Your task to perform on an android device: change the clock display to digital Image 0: 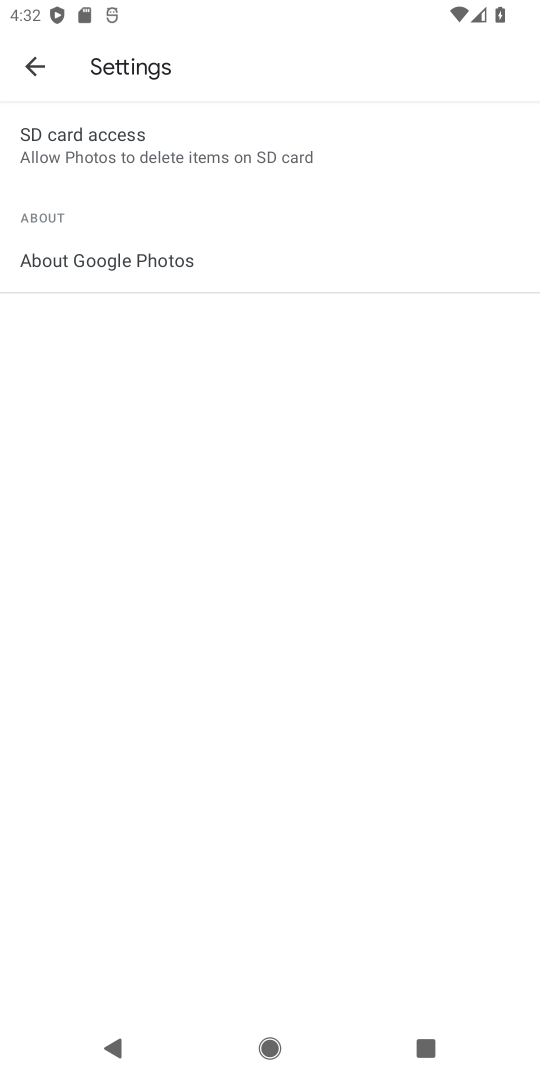
Step 0: press home button
Your task to perform on an android device: change the clock display to digital Image 1: 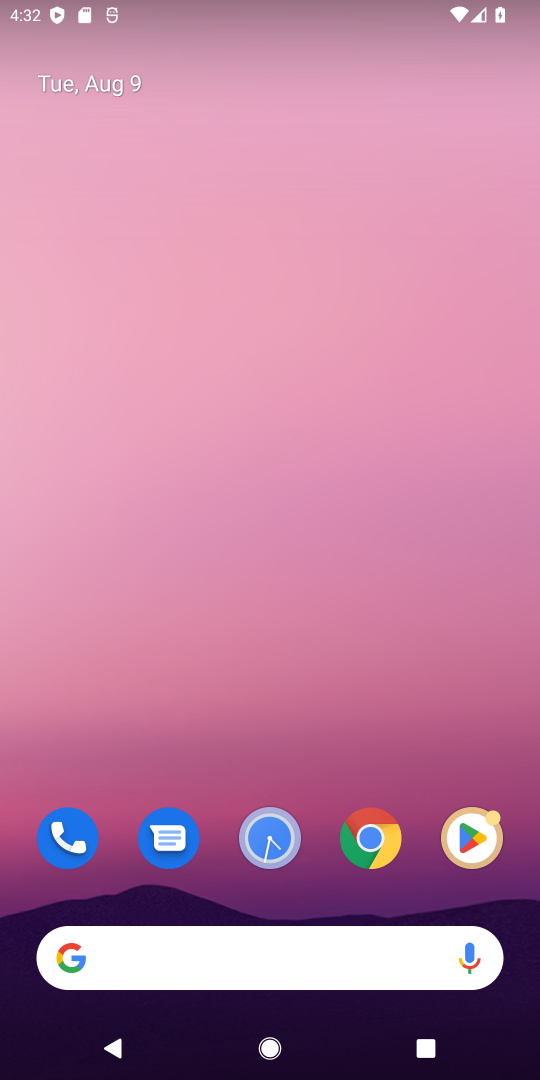
Step 1: click (263, 814)
Your task to perform on an android device: change the clock display to digital Image 2: 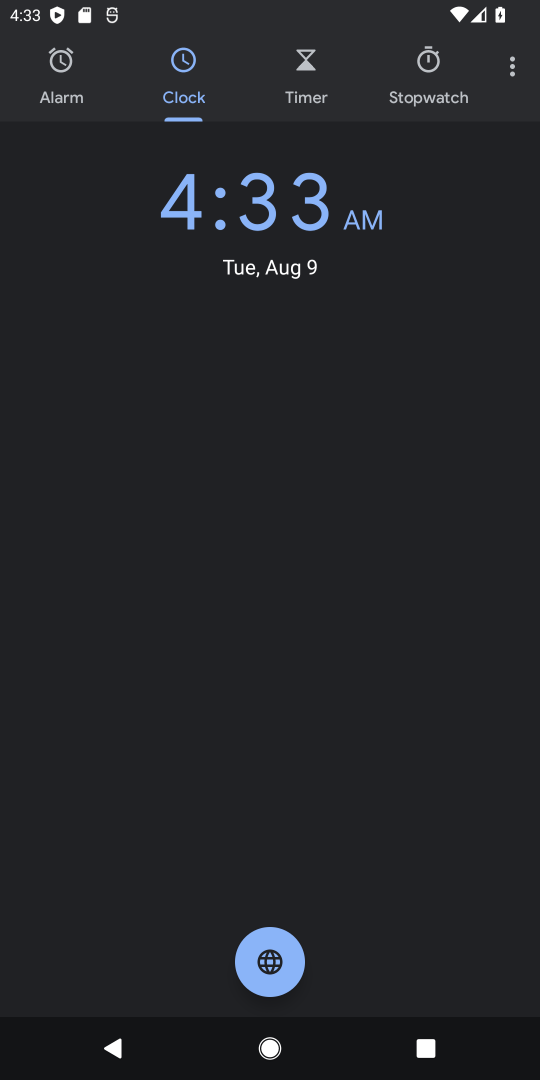
Step 2: click (514, 81)
Your task to perform on an android device: change the clock display to digital Image 3: 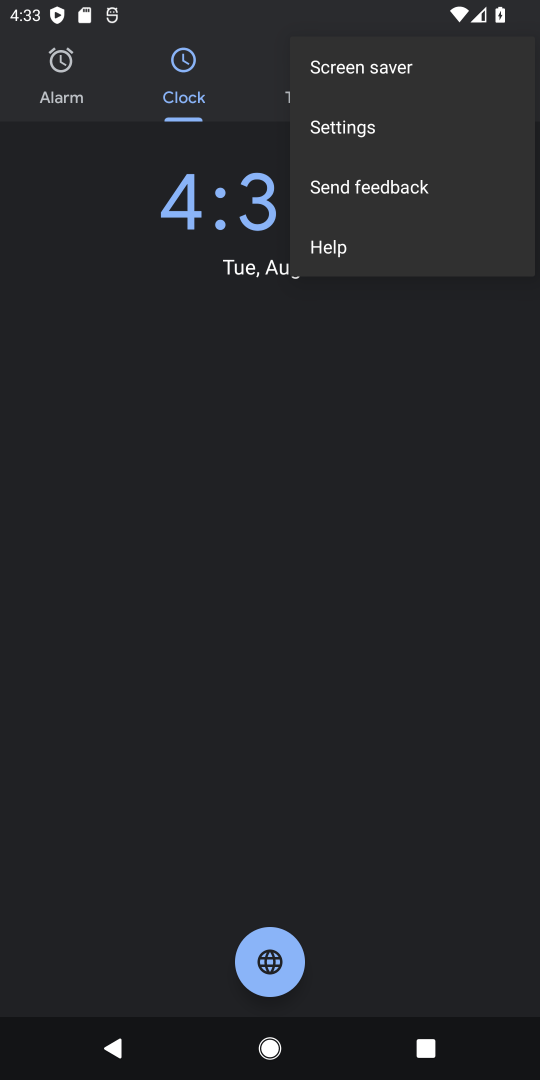
Step 3: click (402, 138)
Your task to perform on an android device: change the clock display to digital Image 4: 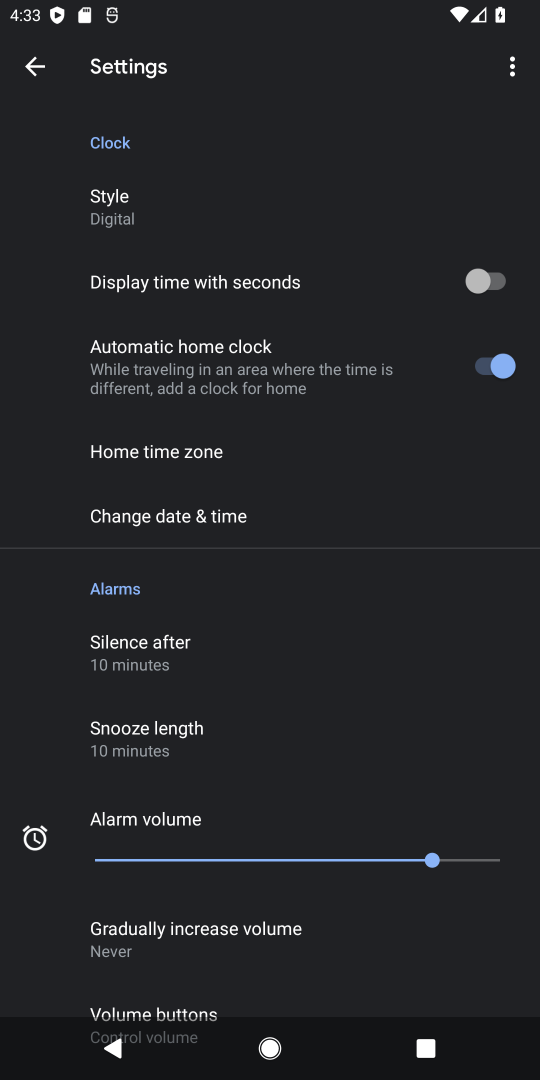
Step 4: task complete